Your task to perform on an android device: open app "NewsBreak: Local News & Alerts" (install if not already installed) Image 0: 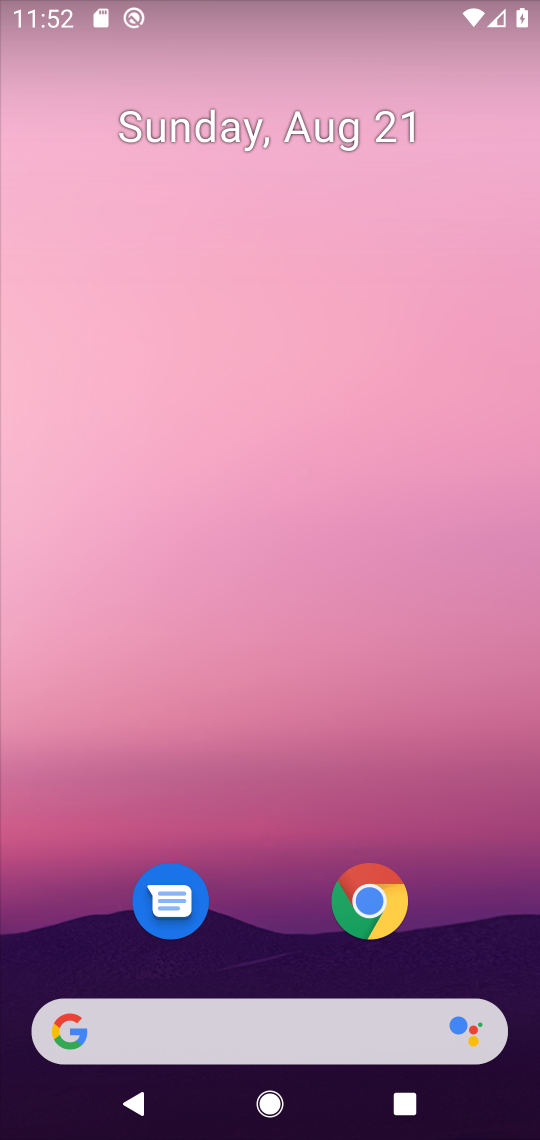
Step 0: drag from (280, 971) to (239, 198)
Your task to perform on an android device: open app "NewsBreak: Local News & Alerts" (install if not already installed) Image 1: 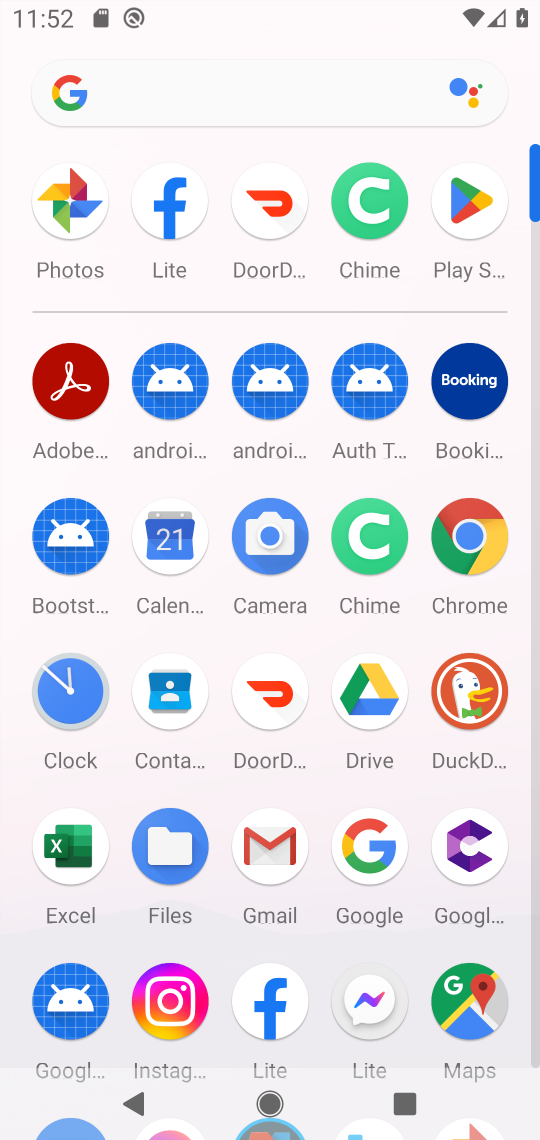
Step 1: click (454, 198)
Your task to perform on an android device: open app "NewsBreak: Local News & Alerts" (install if not already installed) Image 2: 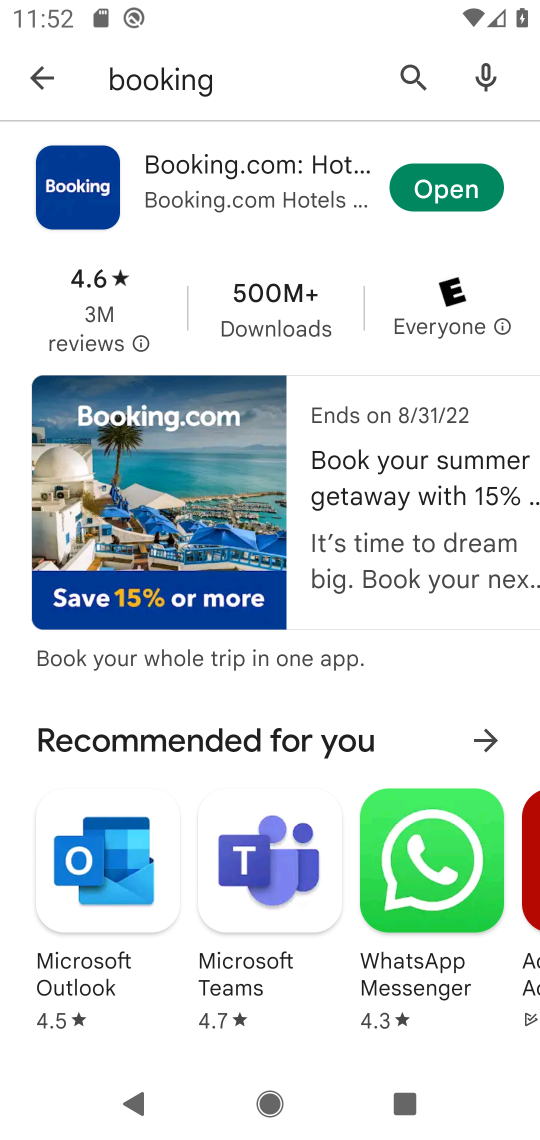
Step 2: click (402, 83)
Your task to perform on an android device: open app "NewsBreak: Local News & Alerts" (install if not already installed) Image 3: 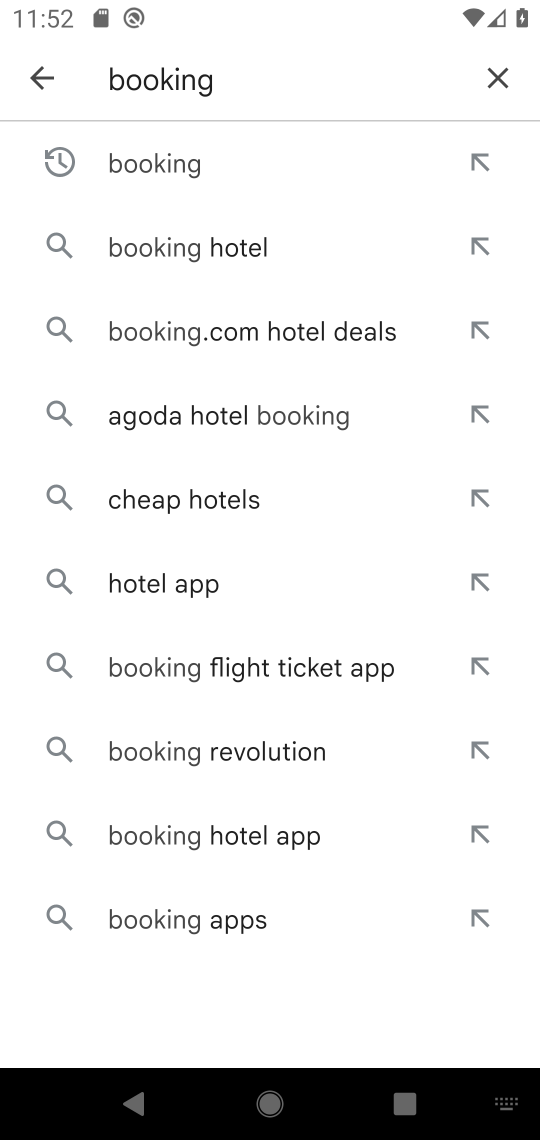
Step 3: click (481, 83)
Your task to perform on an android device: open app "NewsBreak: Local News & Alerts" (install if not already installed) Image 4: 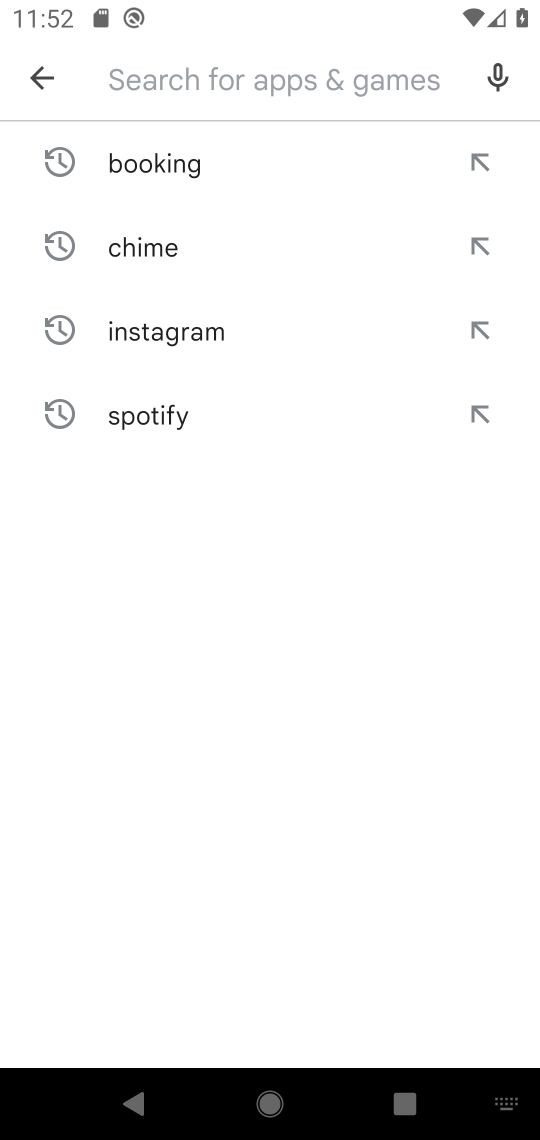
Step 4: type "newsbreak"
Your task to perform on an android device: open app "NewsBreak: Local News & Alerts" (install if not already installed) Image 5: 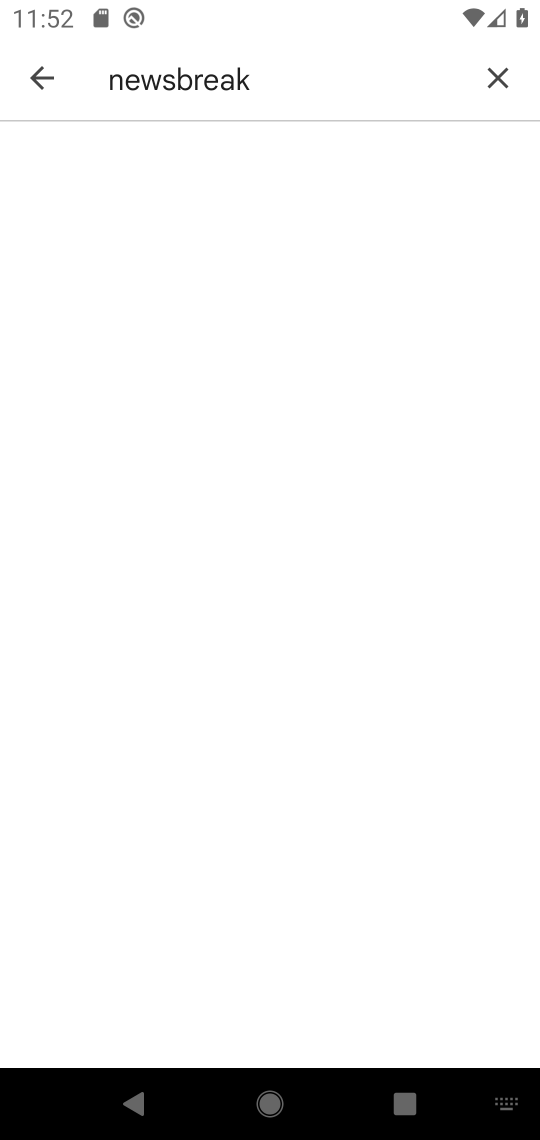
Step 5: task complete